Your task to perform on an android device: What is the recent news? Image 0: 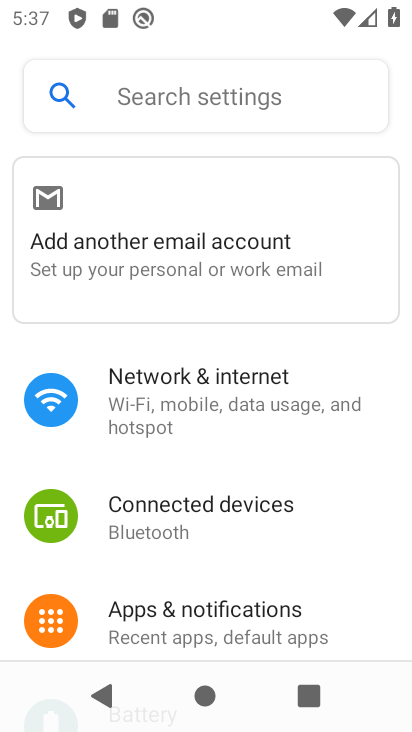
Step 0: press home button
Your task to perform on an android device: What is the recent news? Image 1: 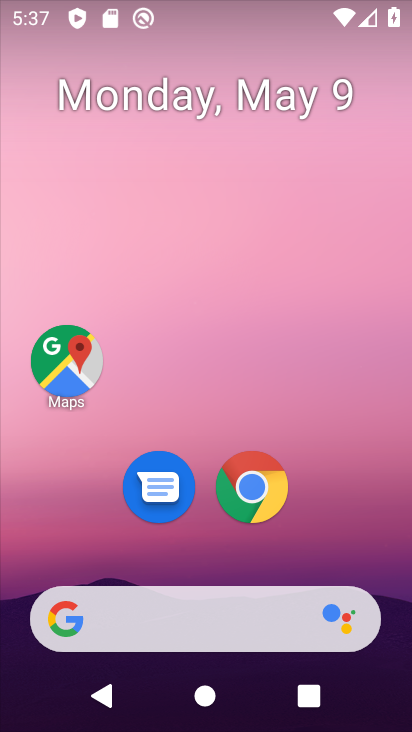
Step 1: click (252, 496)
Your task to perform on an android device: What is the recent news? Image 2: 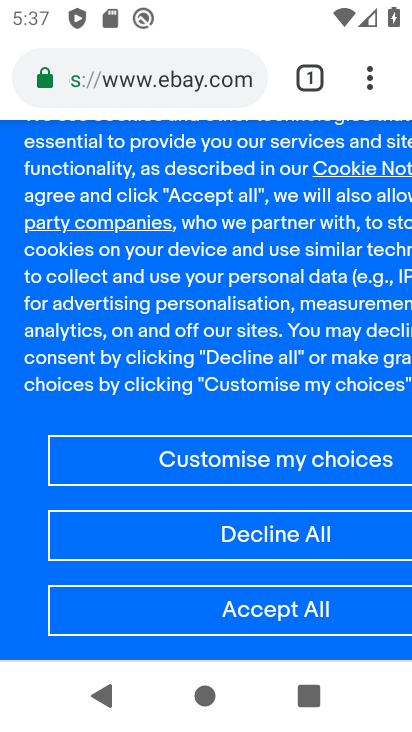
Step 2: click (320, 80)
Your task to perform on an android device: What is the recent news? Image 3: 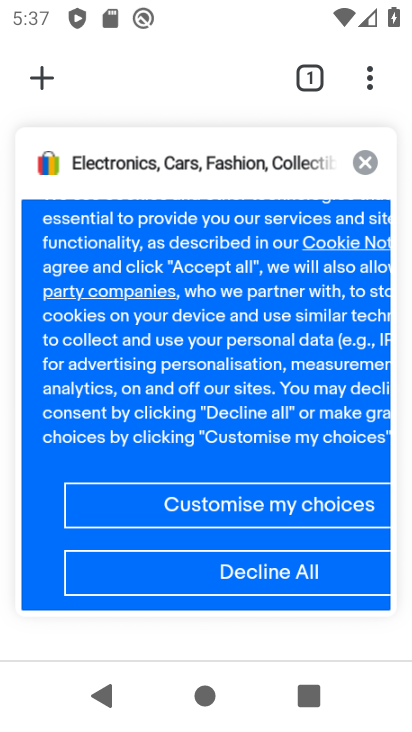
Step 3: click (42, 75)
Your task to perform on an android device: What is the recent news? Image 4: 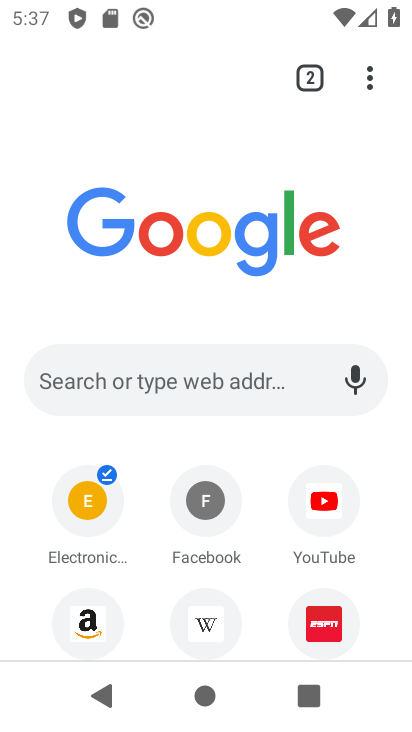
Step 4: drag from (241, 616) to (243, 281)
Your task to perform on an android device: What is the recent news? Image 5: 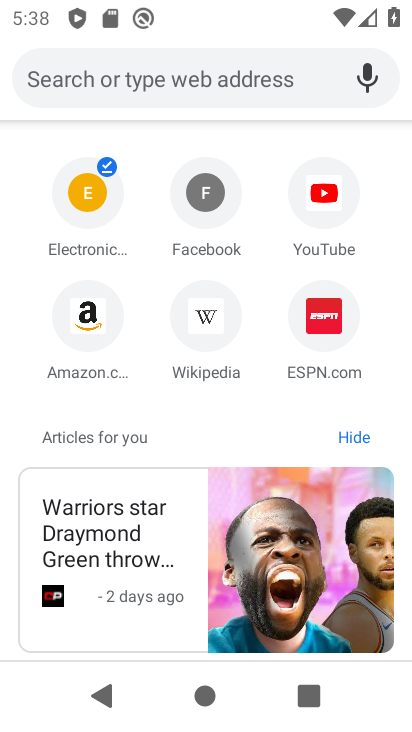
Step 5: click (165, 79)
Your task to perform on an android device: What is the recent news? Image 6: 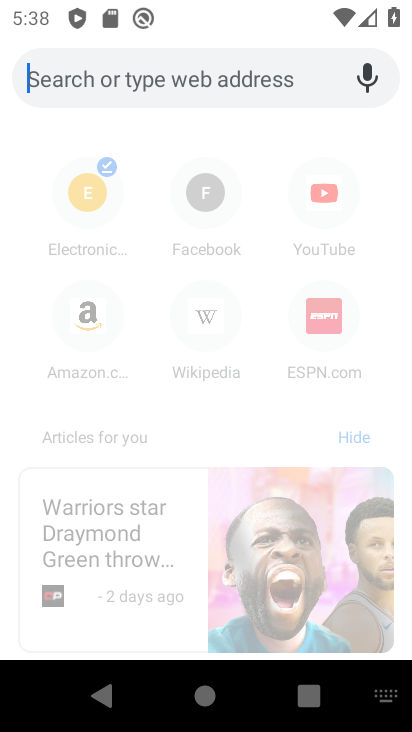
Step 6: type "www.yahoo.com"
Your task to perform on an android device: What is the recent news? Image 7: 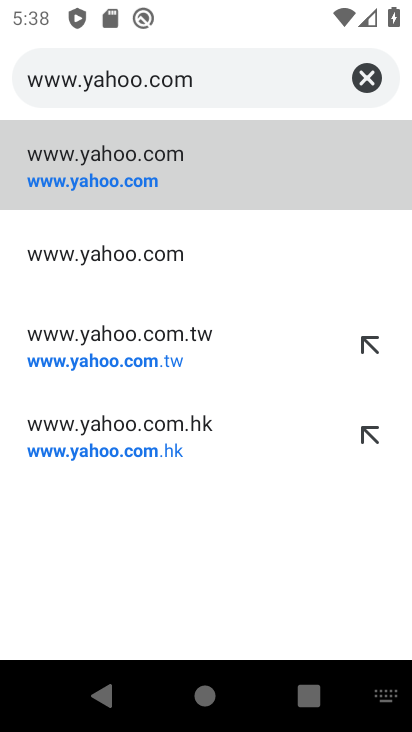
Step 7: click (72, 167)
Your task to perform on an android device: What is the recent news? Image 8: 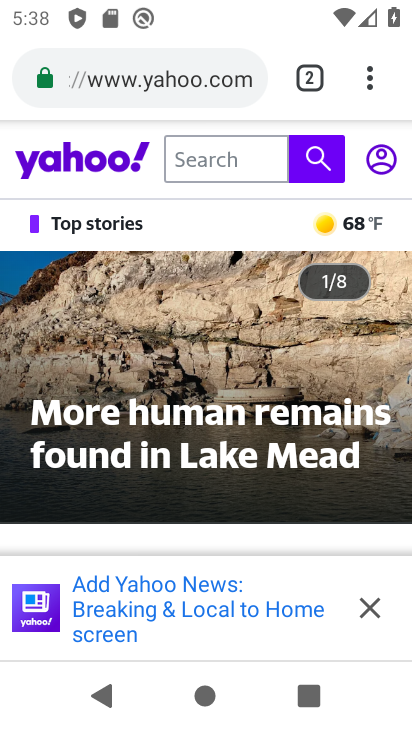
Step 8: task complete